Your task to perform on an android device: Open the Play Movies app and select the watchlist tab. Image 0: 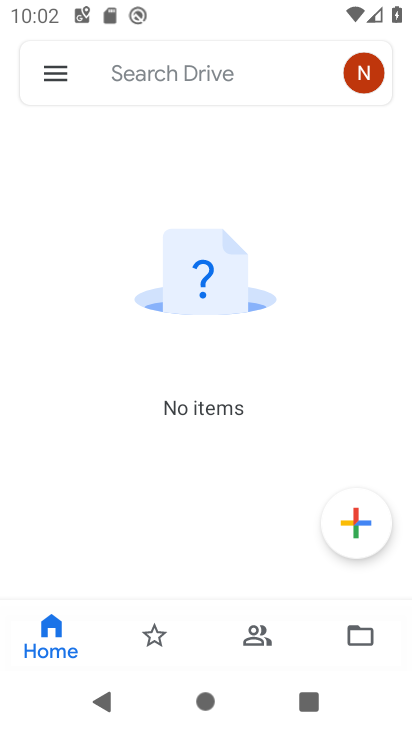
Step 0: press home button
Your task to perform on an android device: Open the Play Movies app and select the watchlist tab. Image 1: 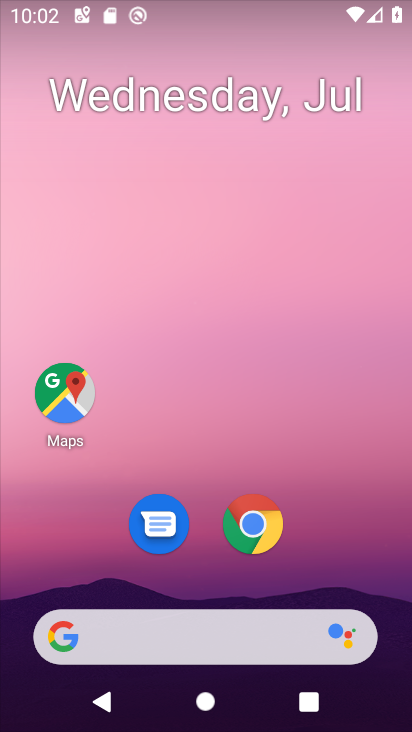
Step 1: drag from (328, 534) to (344, 74)
Your task to perform on an android device: Open the Play Movies app and select the watchlist tab. Image 2: 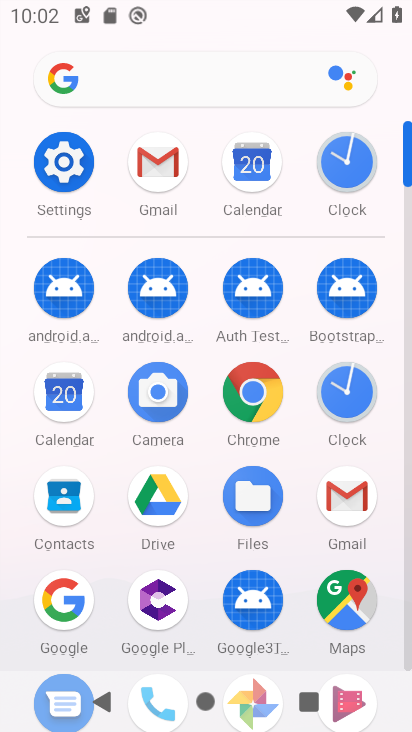
Step 2: drag from (300, 432) to (305, 155)
Your task to perform on an android device: Open the Play Movies app and select the watchlist tab. Image 3: 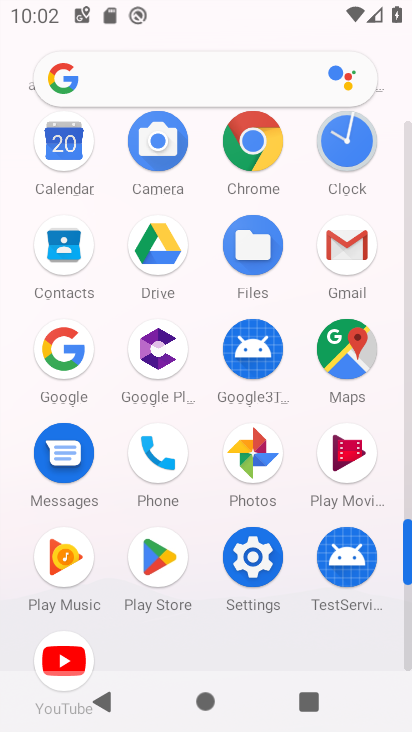
Step 3: click (343, 454)
Your task to perform on an android device: Open the Play Movies app and select the watchlist tab. Image 4: 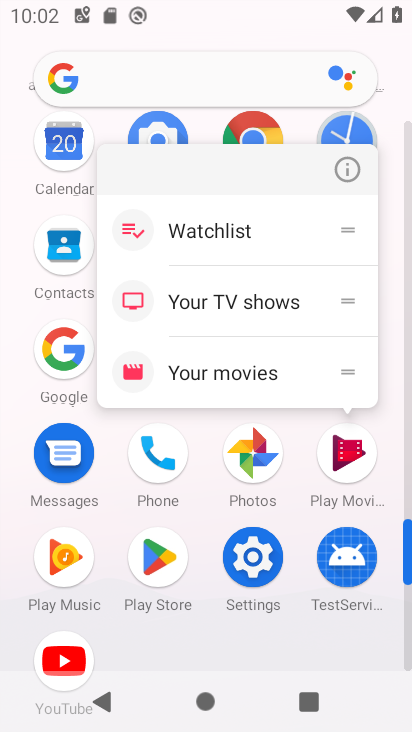
Step 4: click (344, 451)
Your task to perform on an android device: Open the Play Movies app and select the watchlist tab. Image 5: 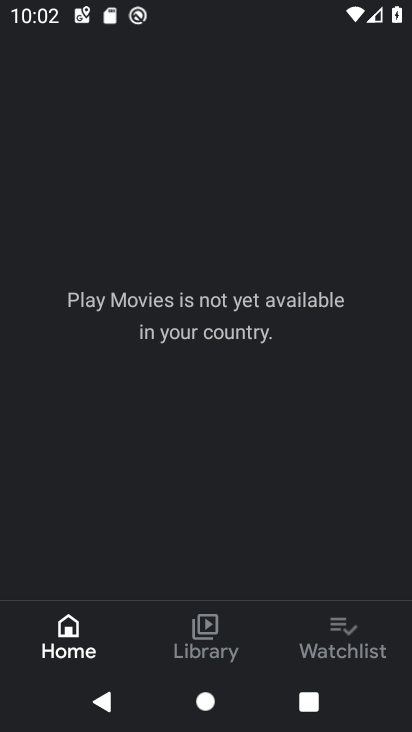
Step 5: click (352, 630)
Your task to perform on an android device: Open the Play Movies app and select the watchlist tab. Image 6: 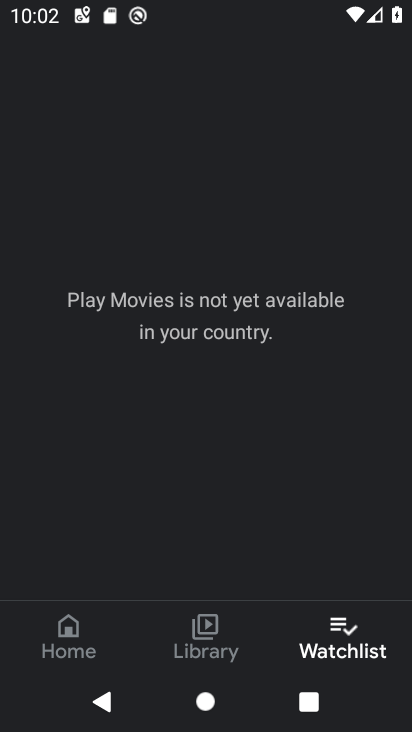
Step 6: task complete